Your task to perform on an android device: change the upload size in google photos Image 0: 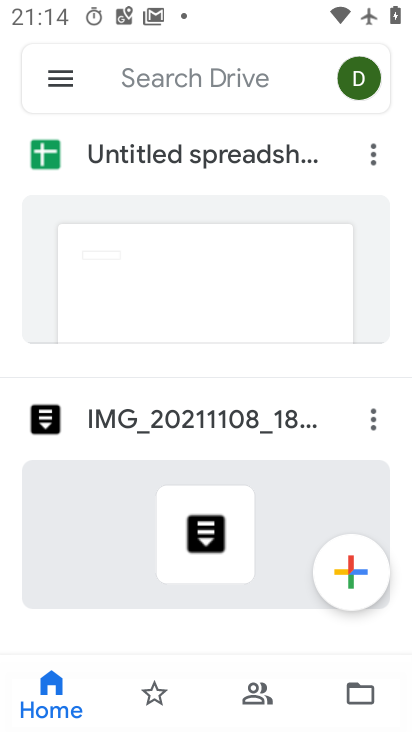
Step 0: press home button
Your task to perform on an android device: change the upload size in google photos Image 1: 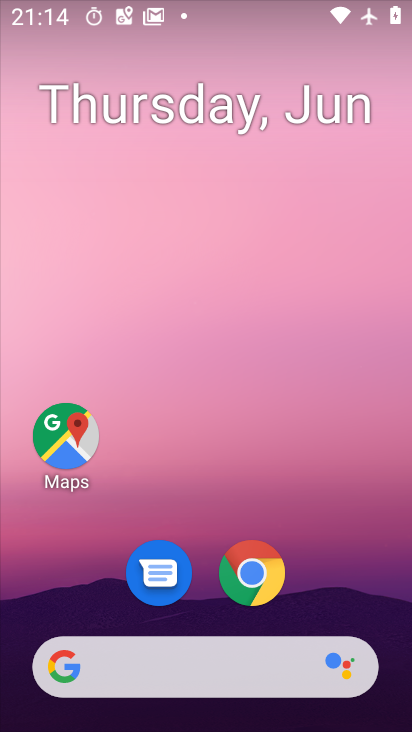
Step 1: drag from (197, 587) to (221, 168)
Your task to perform on an android device: change the upload size in google photos Image 2: 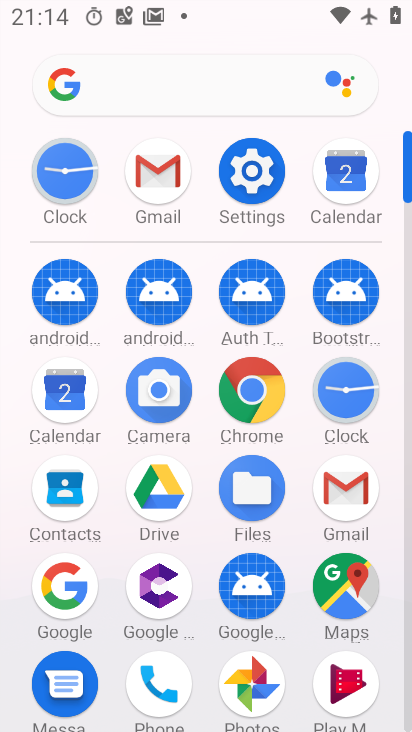
Step 2: click (249, 682)
Your task to perform on an android device: change the upload size in google photos Image 3: 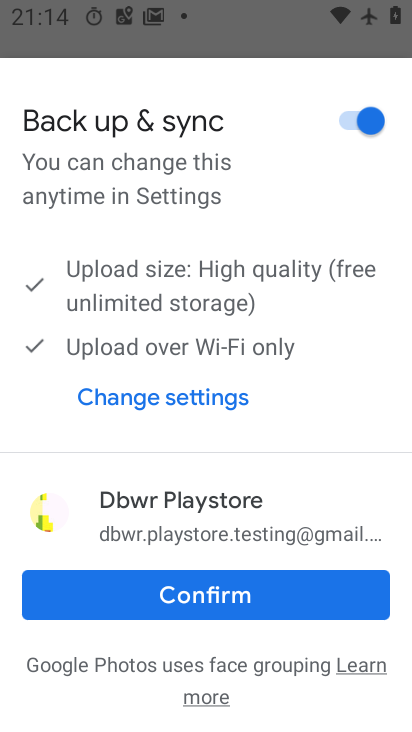
Step 3: click (219, 606)
Your task to perform on an android device: change the upload size in google photos Image 4: 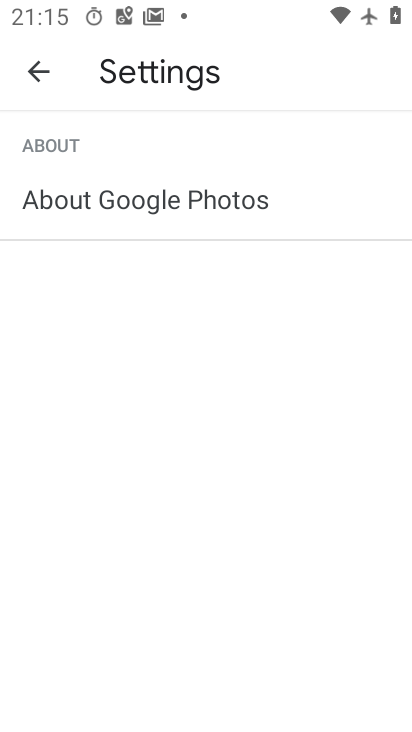
Step 4: click (39, 63)
Your task to perform on an android device: change the upload size in google photos Image 5: 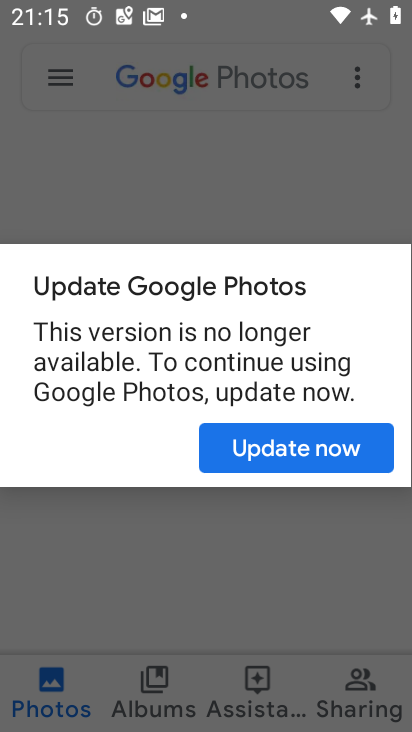
Step 5: click (288, 447)
Your task to perform on an android device: change the upload size in google photos Image 6: 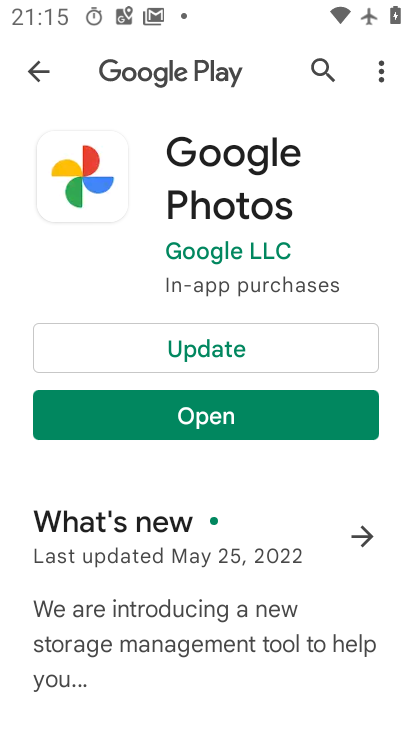
Step 6: click (29, 47)
Your task to perform on an android device: change the upload size in google photos Image 7: 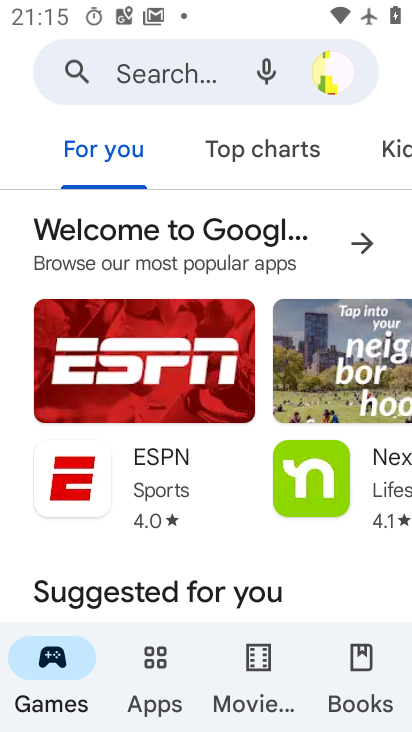
Step 7: press home button
Your task to perform on an android device: change the upload size in google photos Image 8: 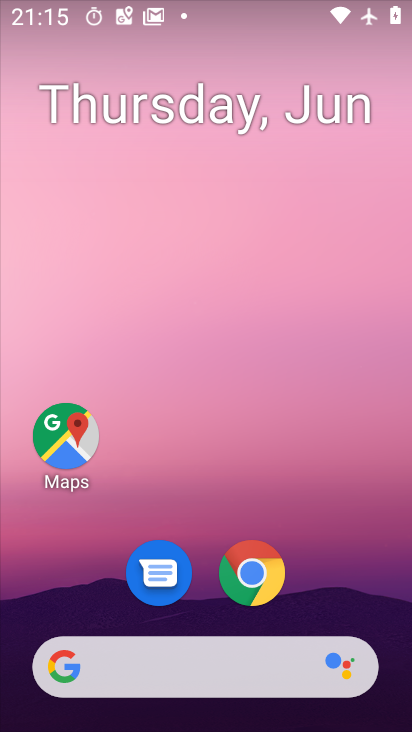
Step 8: drag from (302, 562) to (290, 268)
Your task to perform on an android device: change the upload size in google photos Image 9: 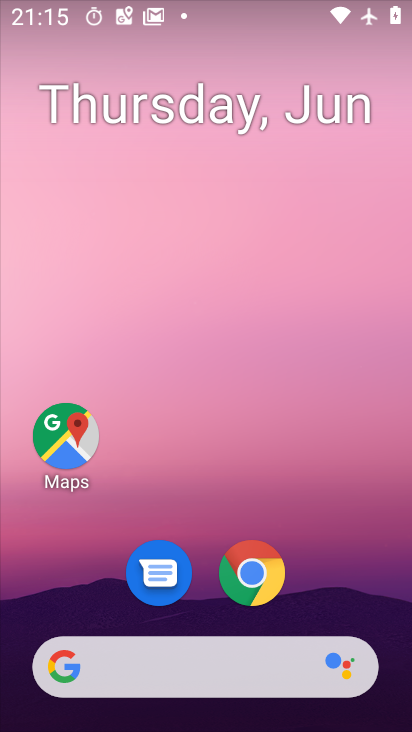
Step 9: drag from (240, 627) to (271, 253)
Your task to perform on an android device: change the upload size in google photos Image 10: 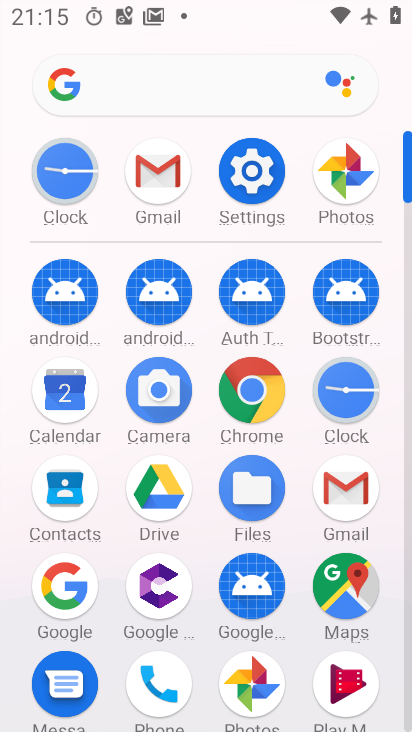
Step 10: click (333, 164)
Your task to perform on an android device: change the upload size in google photos Image 11: 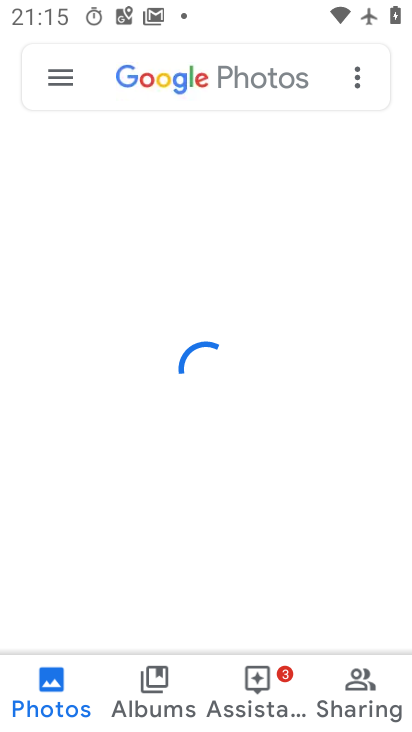
Step 11: click (59, 71)
Your task to perform on an android device: change the upload size in google photos Image 12: 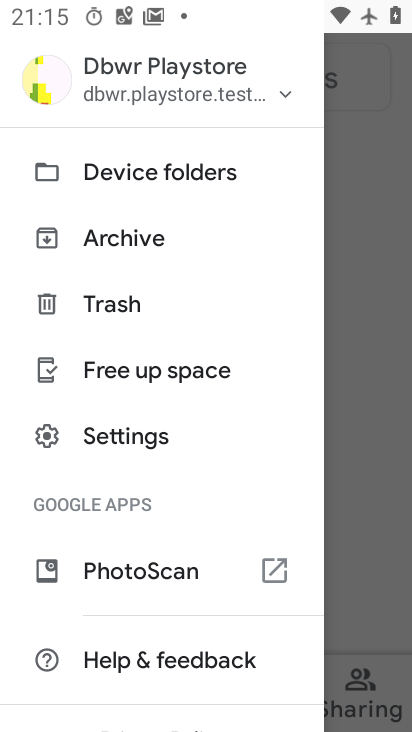
Step 12: click (353, 348)
Your task to perform on an android device: change the upload size in google photos Image 13: 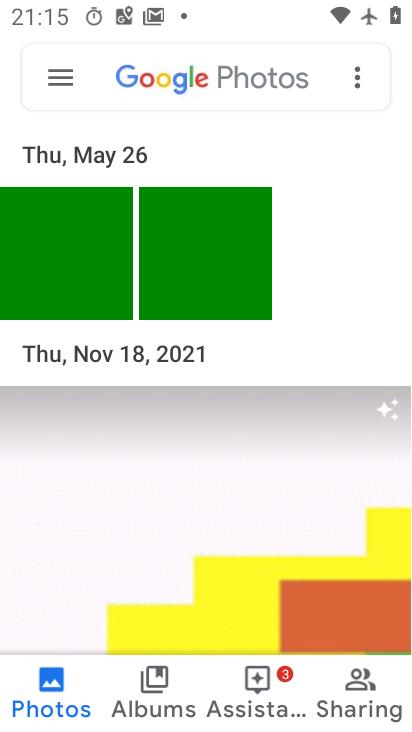
Step 13: click (60, 84)
Your task to perform on an android device: change the upload size in google photos Image 14: 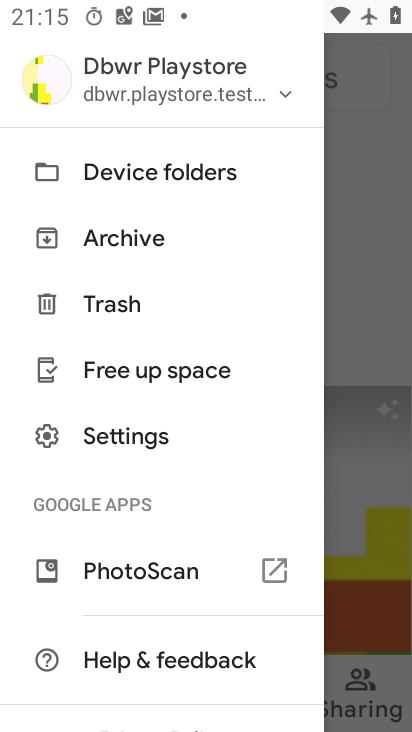
Step 14: click (124, 429)
Your task to perform on an android device: change the upload size in google photos Image 15: 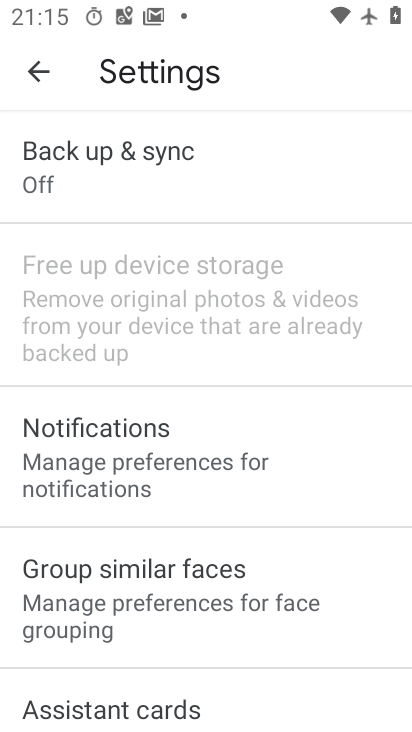
Step 15: click (99, 173)
Your task to perform on an android device: change the upload size in google photos Image 16: 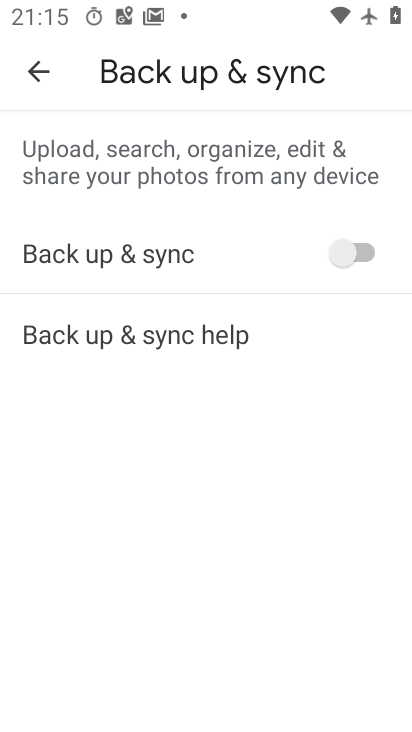
Step 16: click (27, 62)
Your task to perform on an android device: change the upload size in google photos Image 17: 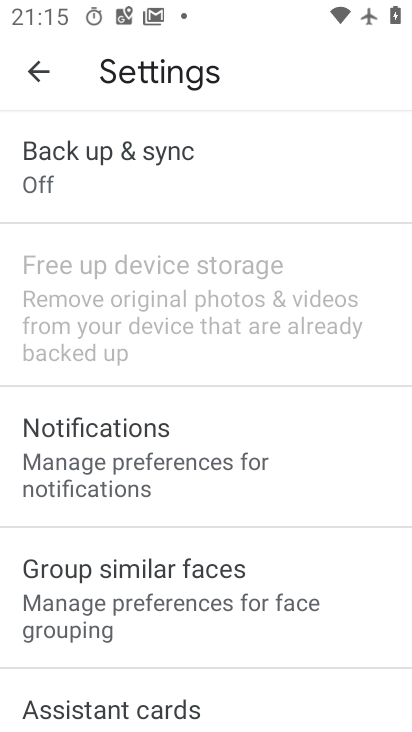
Step 17: click (134, 483)
Your task to perform on an android device: change the upload size in google photos Image 18: 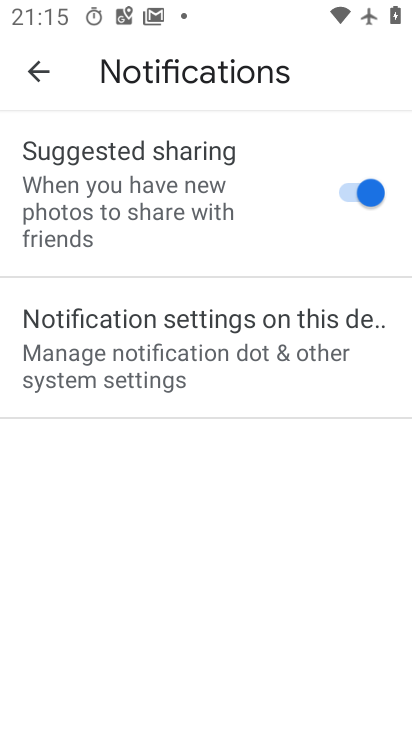
Step 18: click (124, 346)
Your task to perform on an android device: change the upload size in google photos Image 19: 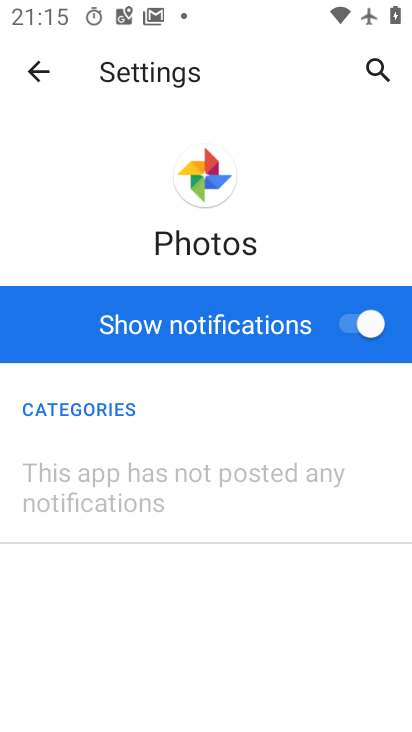
Step 19: click (38, 62)
Your task to perform on an android device: change the upload size in google photos Image 20: 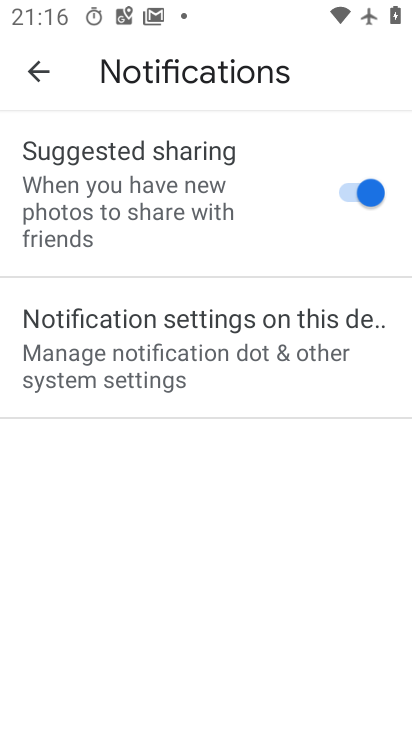
Step 20: click (37, 60)
Your task to perform on an android device: change the upload size in google photos Image 21: 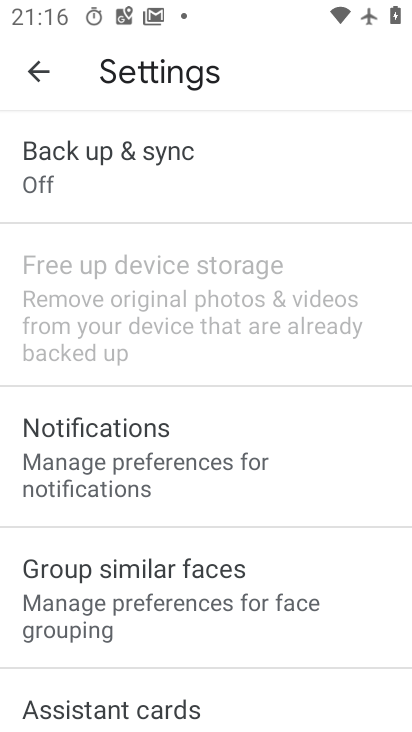
Step 21: drag from (170, 570) to (191, 268)
Your task to perform on an android device: change the upload size in google photos Image 22: 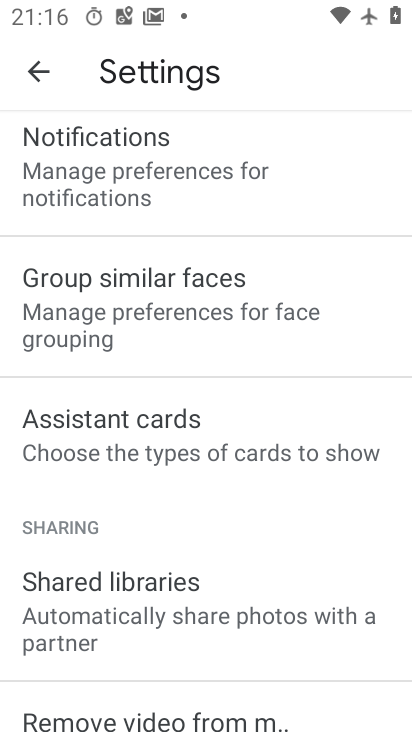
Step 22: click (58, 84)
Your task to perform on an android device: change the upload size in google photos Image 23: 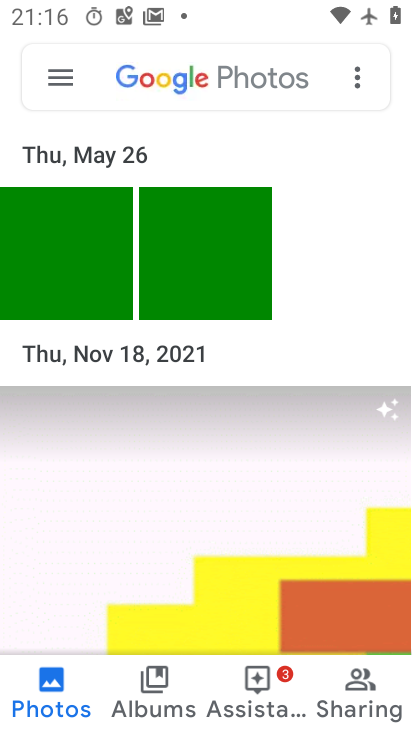
Step 23: click (45, 70)
Your task to perform on an android device: change the upload size in google photos Image 24: 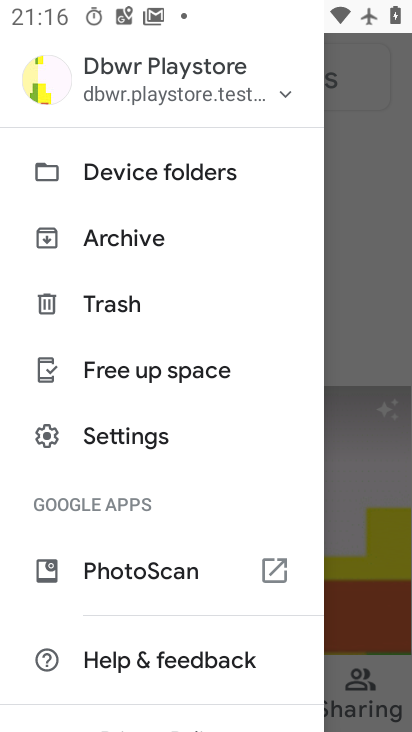
Step 24: click (126, 436)
Your task to perform on an android device: change the upload size in google photos Image 25: 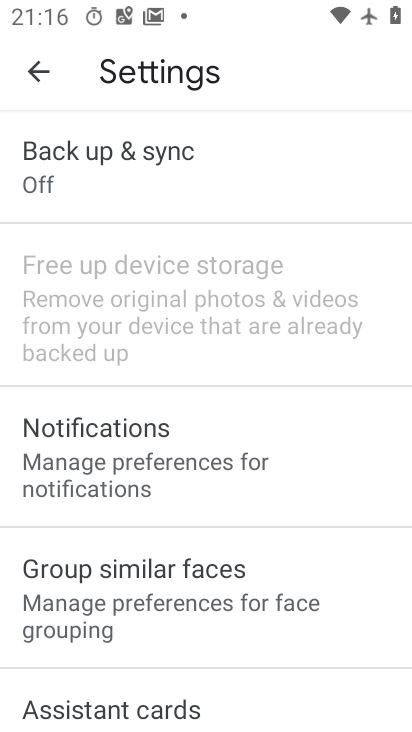
Step 25: click (152, 188)
Your task to perform on an android device: change the upload size in google photos Image 26: 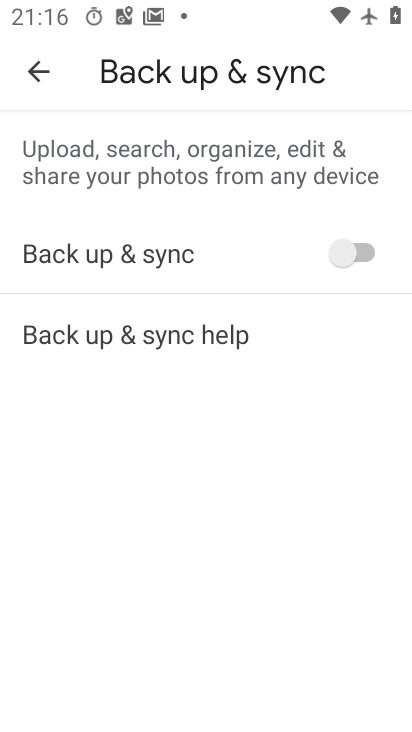
Step 26: click (42, 71)
Your task to perform on an android device: change the upload size in google photos Image 27: 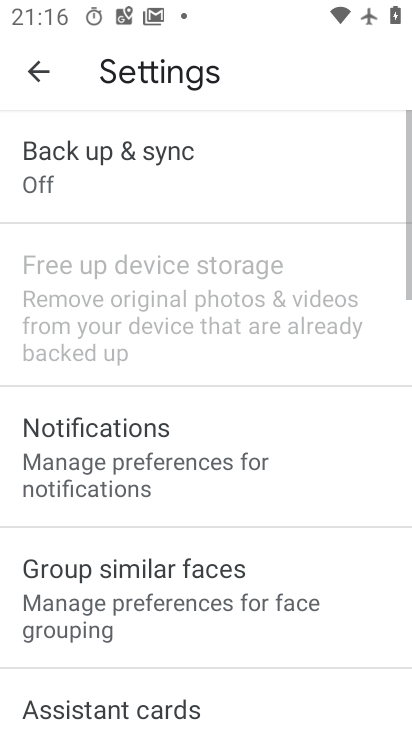
Step 27: click (92, 464)
Your task to perform on an android device: change the upload size in google photos Image 28: 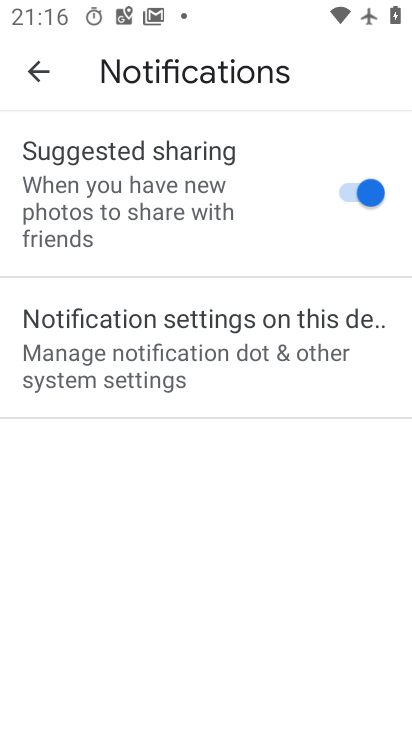
Step 28: click (99, 357)
Your task to perform on an android device: change the upload size in google photos Image 29: 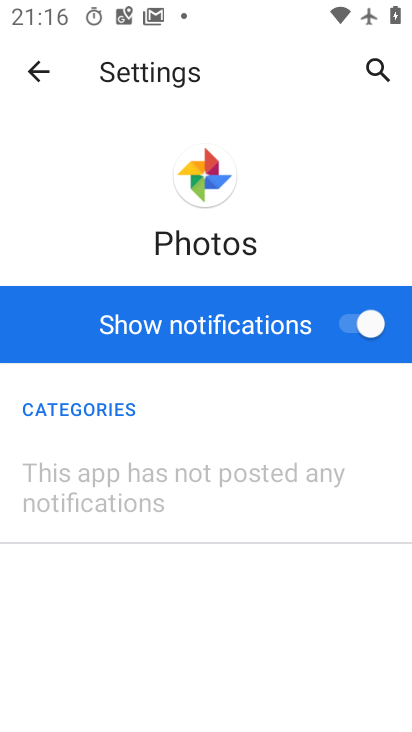
Step 29: drag from (166, 636) to (200, 340)
Your task to perform on an android device: change the upload size in google photos Image 30: 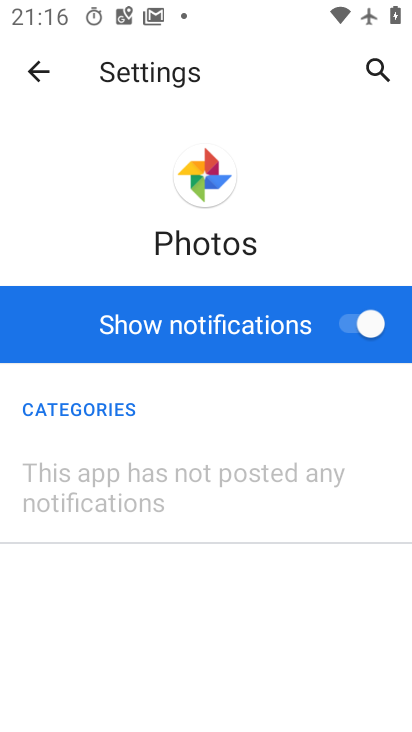
Step 30: click (370, 311)
Your task to perform on an android device: change the upload size in google photos Image 31: 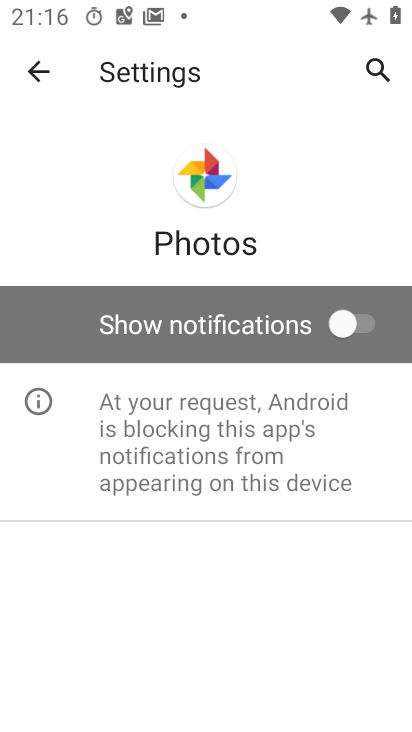
Step 31: click (364, 315)
Your task to perform on an android device: change the upload size in google photos Image 32: 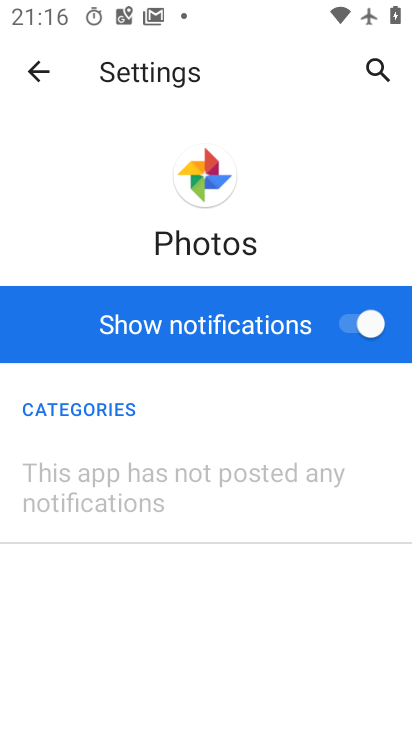
Step 32: click (41, 53)
Your task to perform on an android device: change the upload size in google photos Image 33: 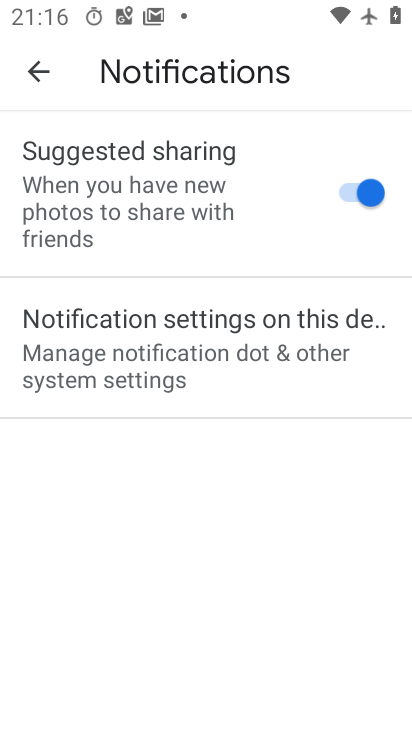
Step 33: click (22, 67)
Your task to perform on an android device: change the upload size in google photos Image 34: 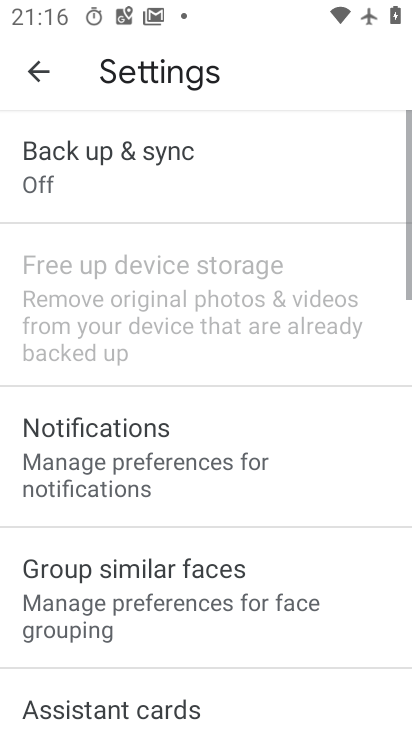
Step 34: task complete